Your task to perform on an android device: install app "Paramount+ | Peak Streaming" Image 0: 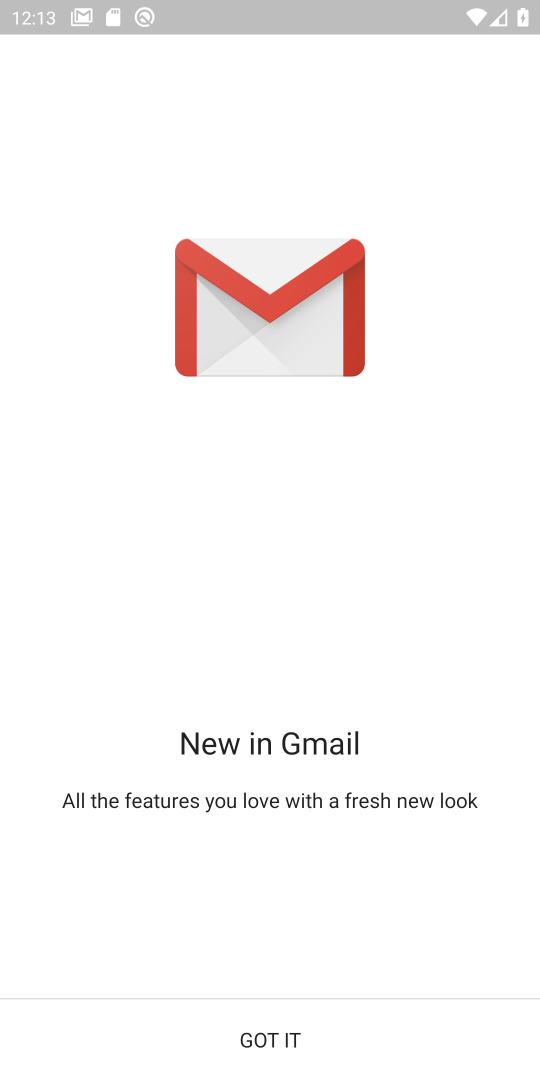
Step 0: press home button
Your task to perform on an android device: install app "Paramount+ | Peak Streaming" Image 1: 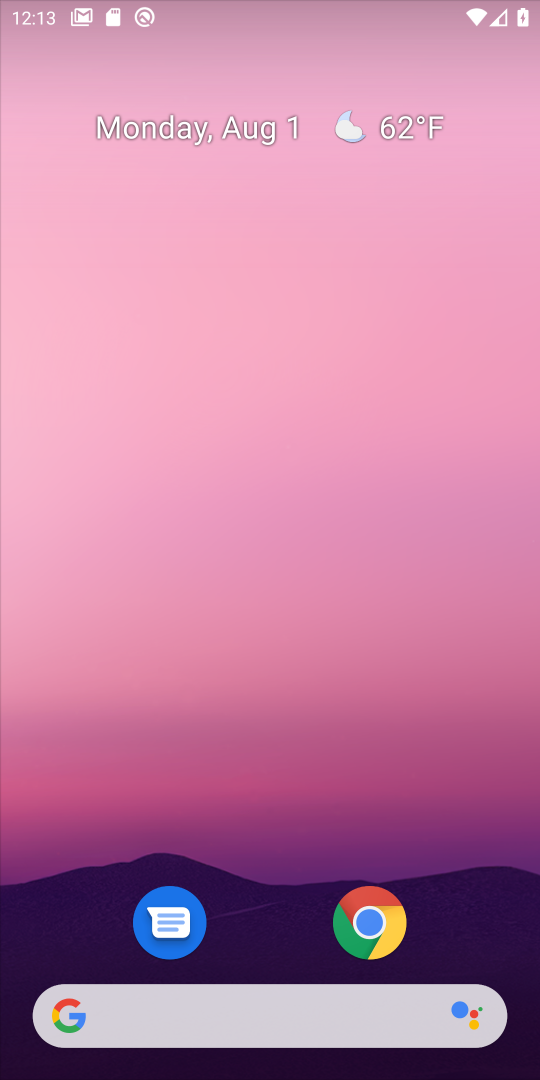
Step 1: drag from (252, 889) to (254, 311)
Your task to perform on an android device: install app "Paramount+ | Peak Streaming" Image 2: 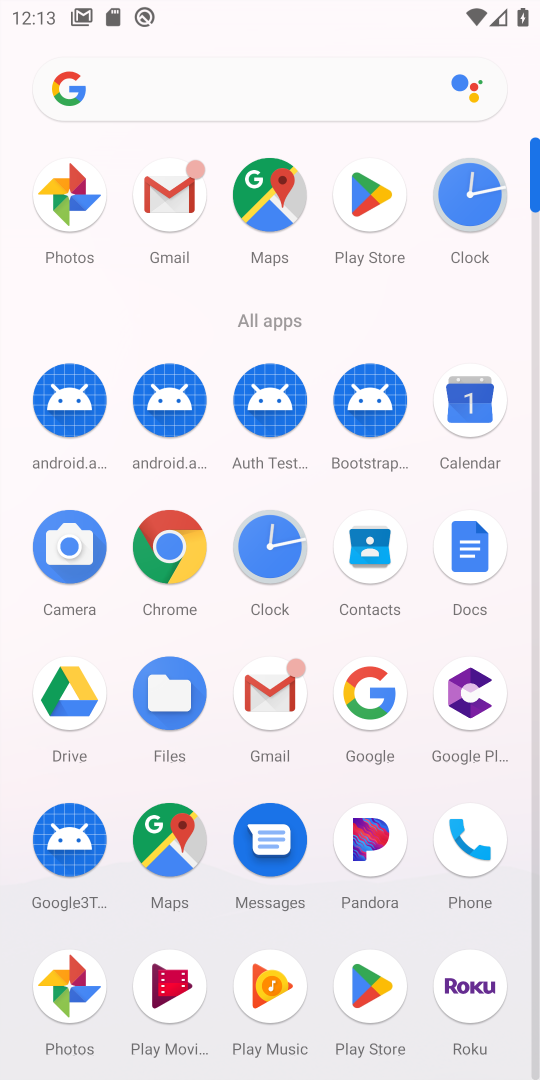
Step 2: click (354, 217)
Your task to perform on an android device: install app "Paramount+ | Peak Streaming" Image 3: 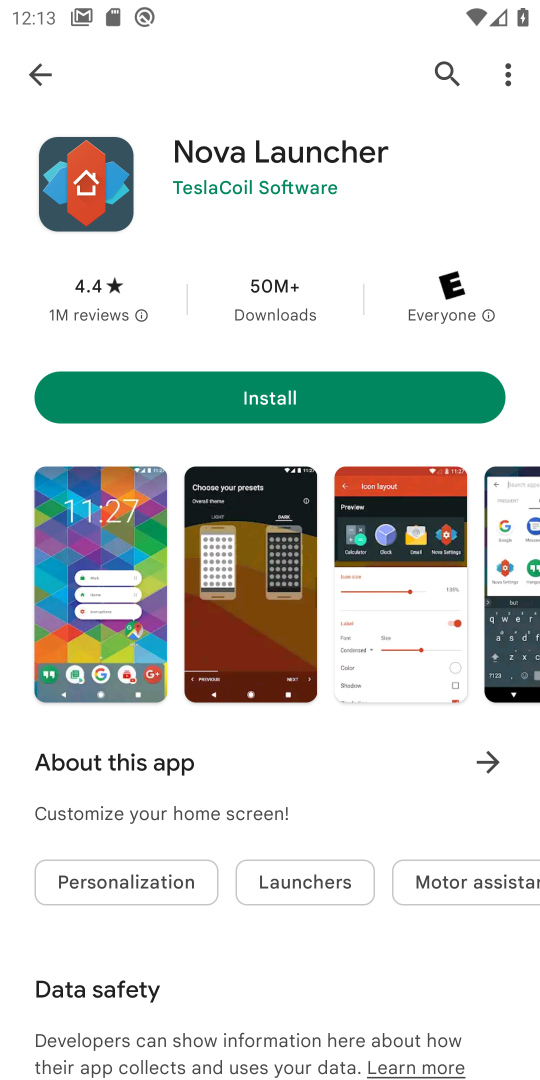
Step 3: click (455, 84)
Your task to perform on an android device: install app "Paramount+ | Peak Streaming" Image 4: 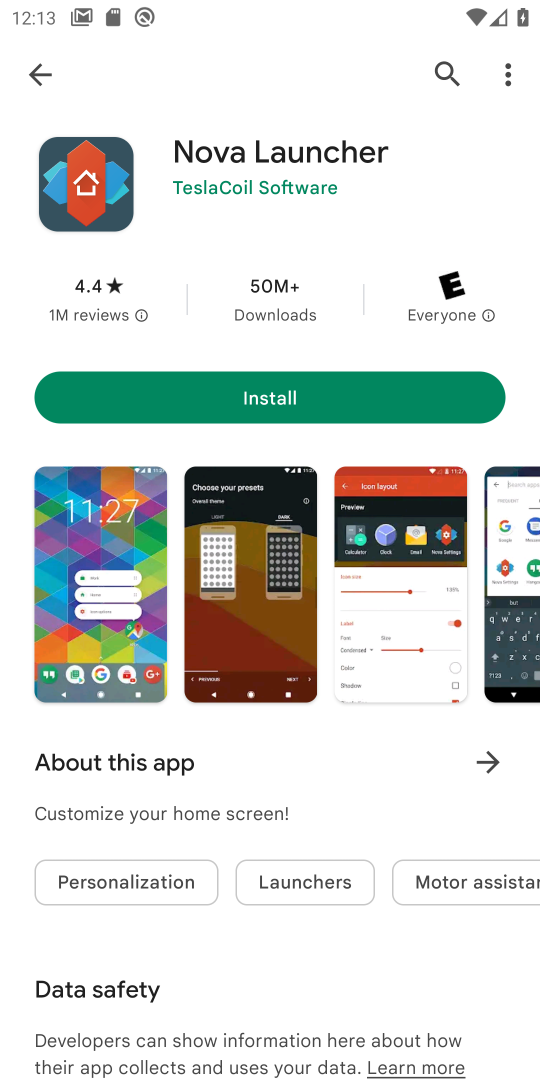
Step 4: click (445, 60)
Your task to perform on an android device: install app "Paramount+ | Peak Streaming" Image 5: 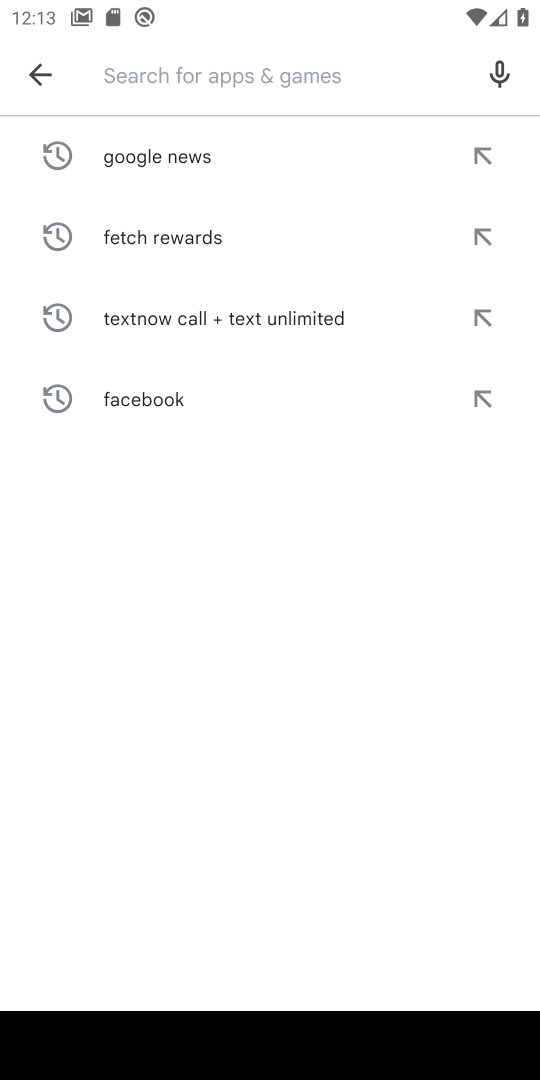
Step 5: type "Paramount+ | Peak Streaming"
Your task to perform on an android device: install app "Paramount+ | Peak Streaming" Image 6: 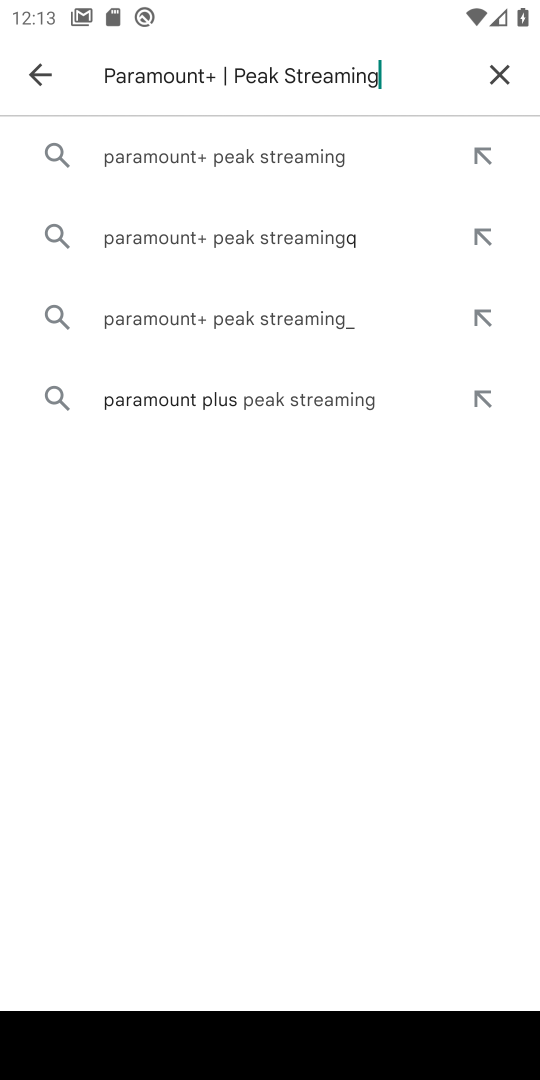
Step 6: click (246, 155)
Your task to perform on an android device: install app "Paramount+ | Peak Streaming" Image 7: 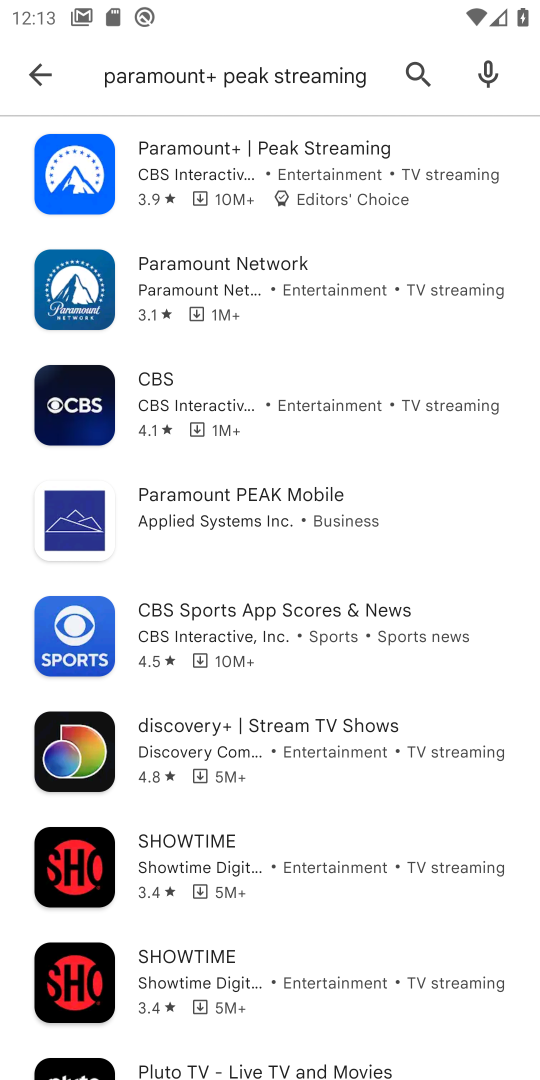
Step 7: click (254, 172)
Your task to perform on an android device: install app "Paramount+ | Peak Streaming" Image 8: 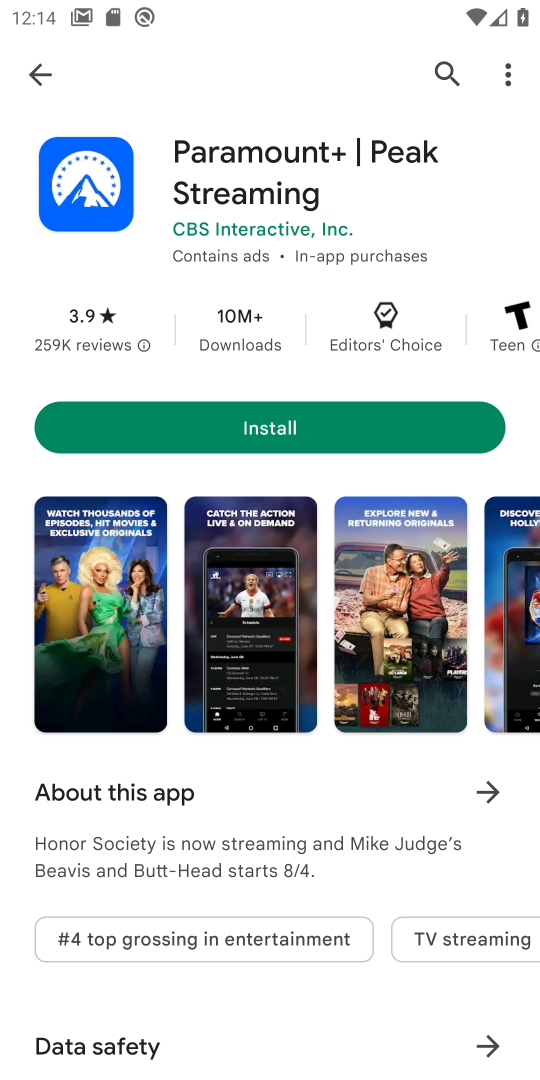
Step 8: click (278, 411)
Your task to perform on an android device: install app "Paramount+ | Peak Streaming" Image 9: 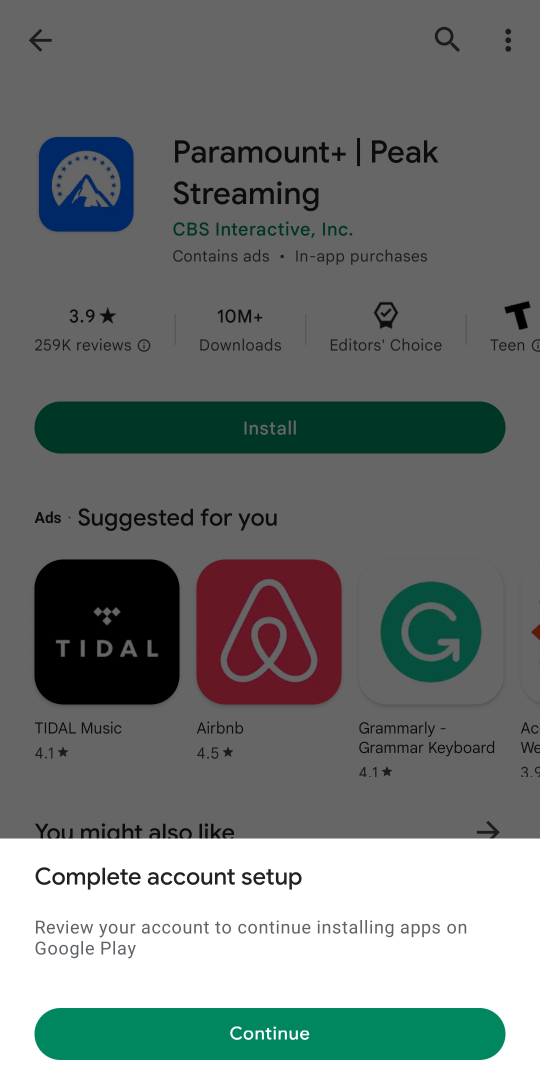
Step 9: click (317, 1036)
Your task to perform on an android device: install app "Paramount+ | Peak Streaming" Image 10: 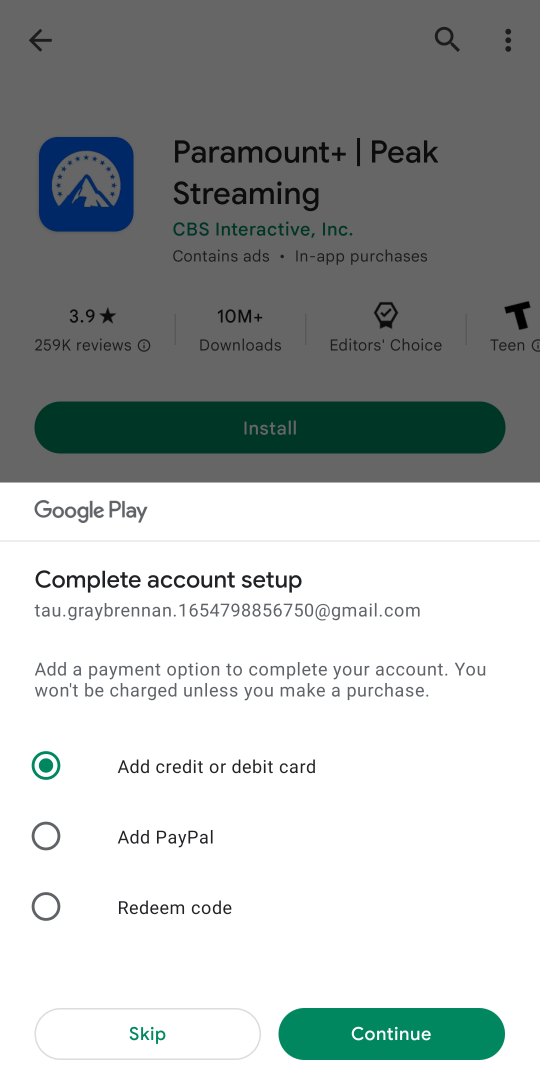
Step 10: click (143, 1024)
Your task to perform on an android device: install app "Paramount+ | Peak Streaming" Image 11: 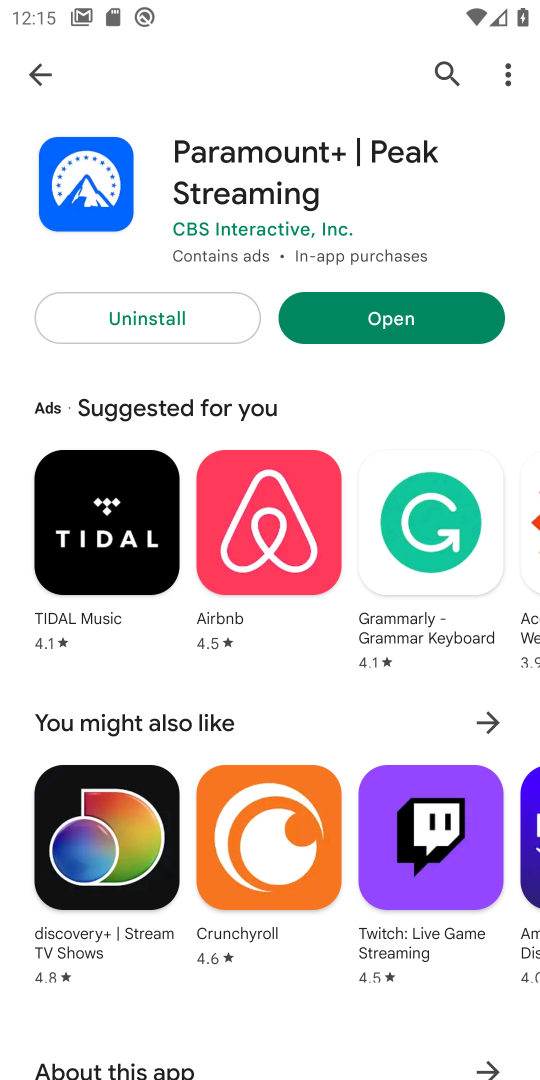
Step 11: task complete